Your task to perform on an android device: Go to accessibility settings Image 0: 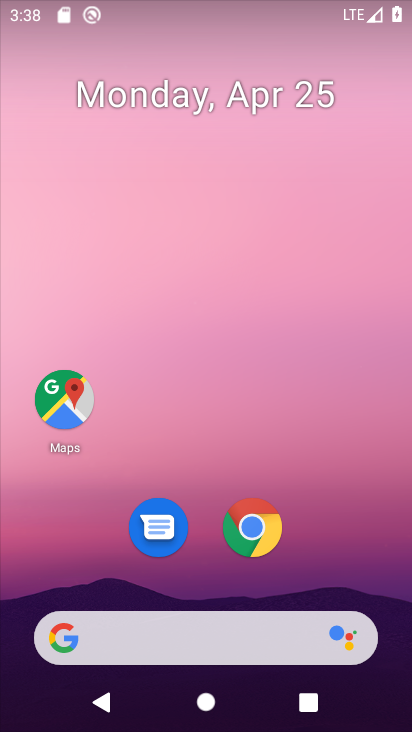
Step 0: drag from (386, 612) to (363, 12)
Your task to perform on an android device: Go to accessibility settings Image 1: 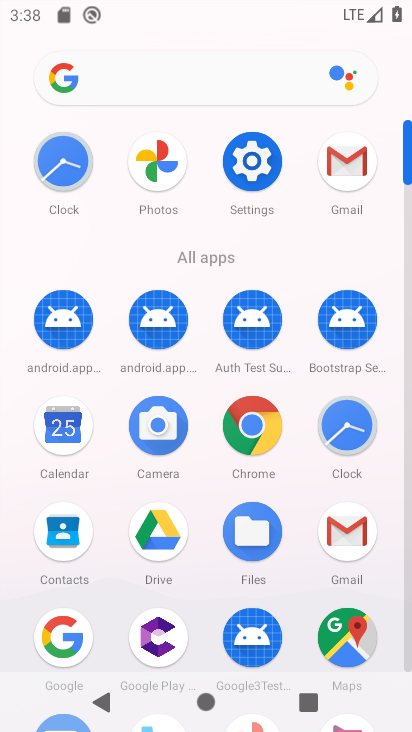
Step 1: click (408, 655)
Your task to perform on an android device: Go to accessibility settings Image 2: 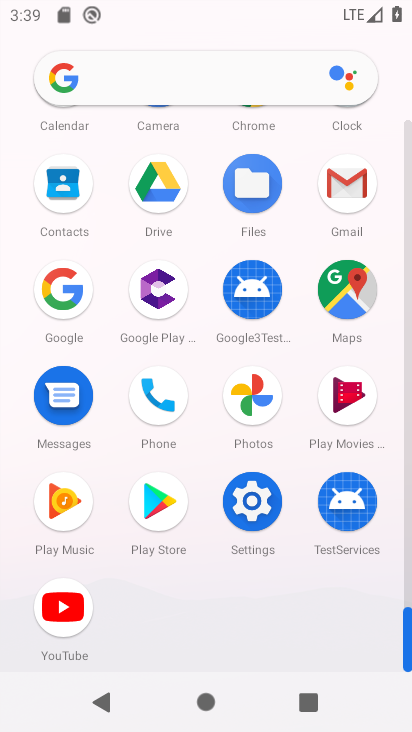
Step 2: click (251, 499)
Your task to perform on an android device: Go to accessibility settings Image 3: 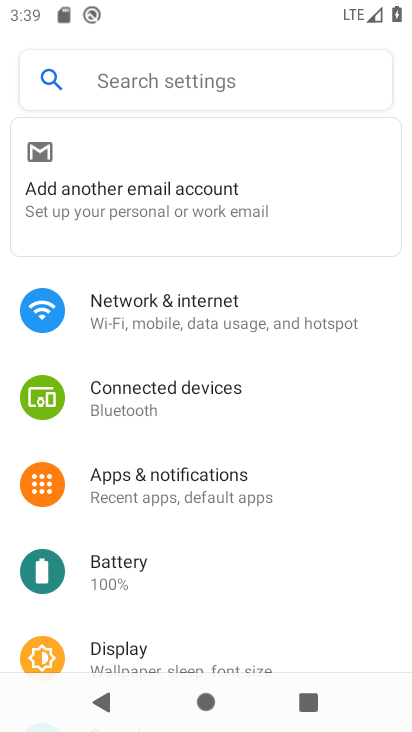
Step 3: drag from (358, 632) to (383, 163)
Your task to perform on an android device: Go to accessibility settings Image 4: 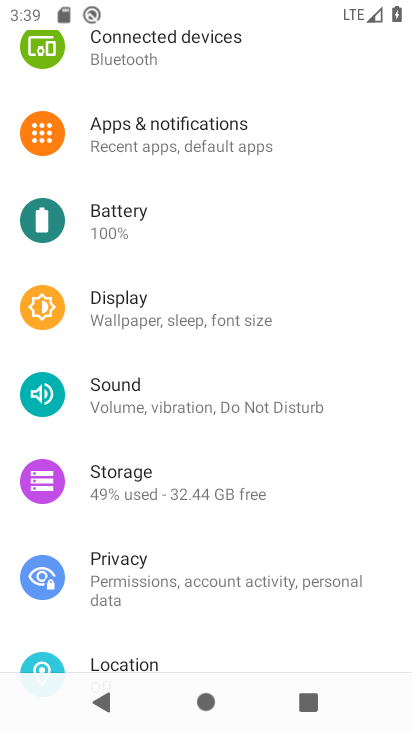
Step 4: drag from (358, 573) to (344, 163)
Your task to perform on an android device: Go to accessibility settings Image 5: 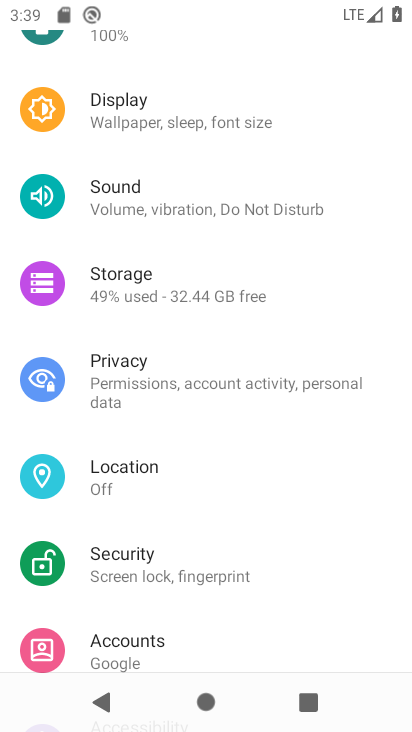
Step 5: drag from (267, 645) to (338, 226)
Your task to perform on an android device: Go to accessibility settings Image 6: 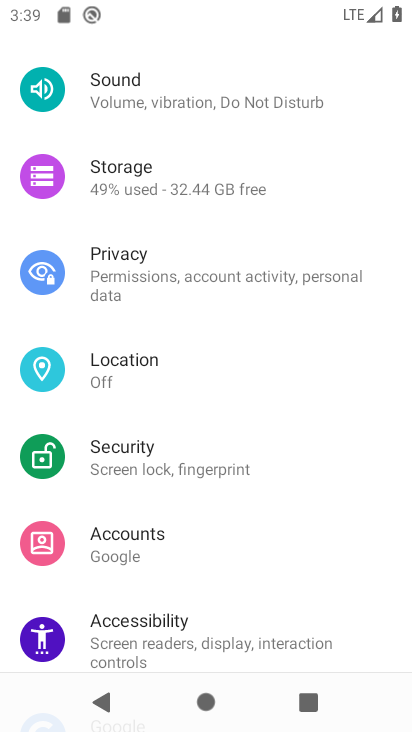
Step 6: click (131, 626)
Your task to perform on an android device: Go to accessibility settings Image 7: 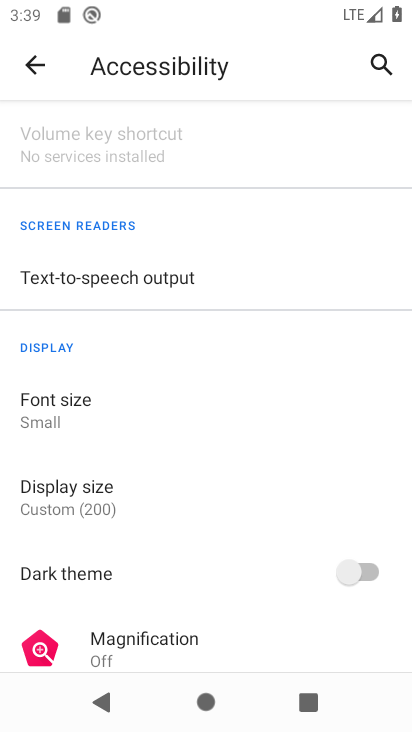
Step 7: task complete